Your task to perform on an android device: move an email to a new category in the gmail app Image 0: 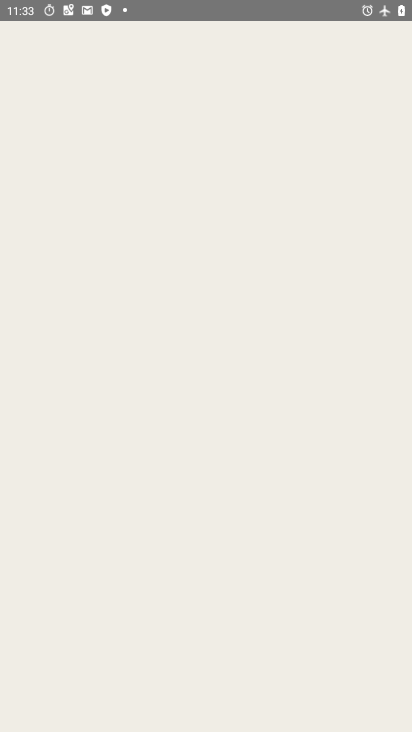
Step 0: press home button
Your task to perform on an android device: move an email to a new category in the gmail app Image 1: 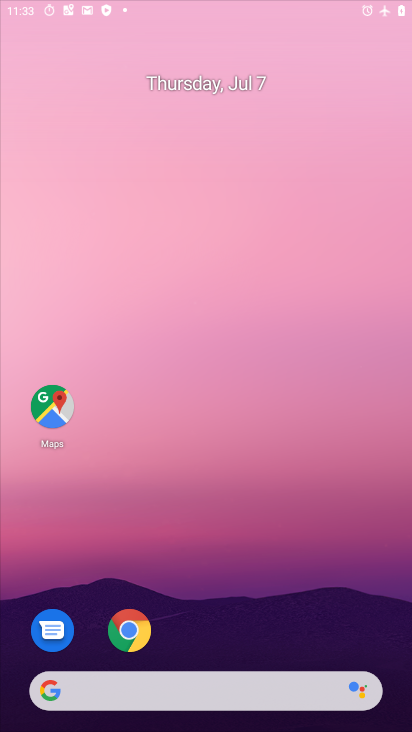
Step 1: press home button
Your task to perform on an android device: move an email to a new category in the gmail app Image 2: 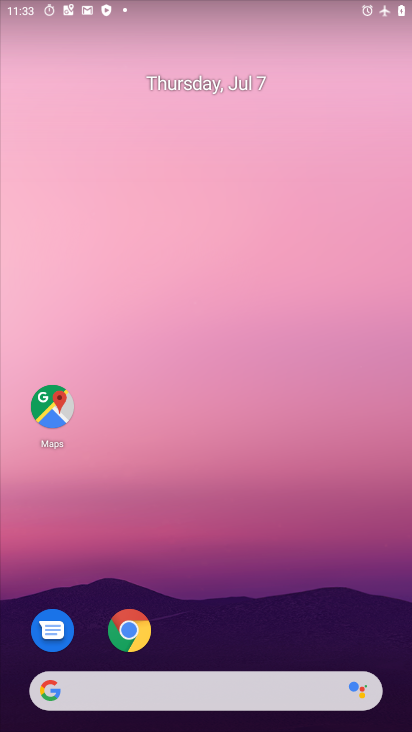
Step 2: drag from (192, 618) to (199, 142)
Your task to perform on an android device: move an email to a new category in the gmail app Image 3: 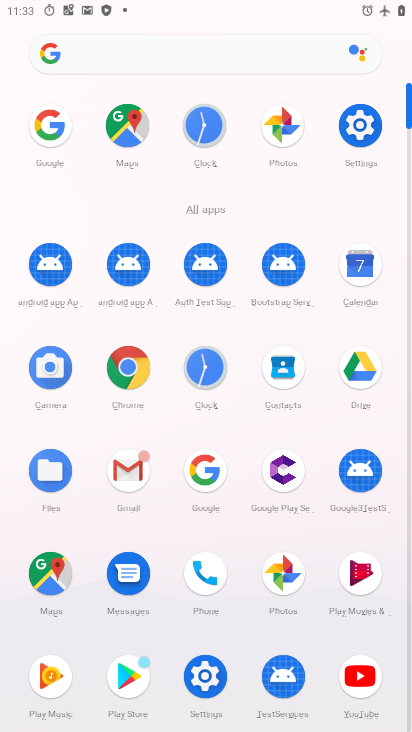
Step 3: click (137, 467)
Your task to perform on an android device: move an email to a new category in the gmail app Image 4: 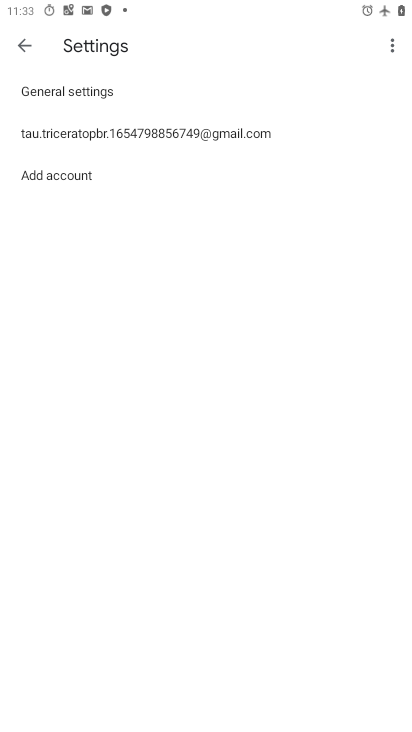
Step 4: click (30, 47)
Your task to perform on an android device: move an email to a new category in the gmail app Image 5: 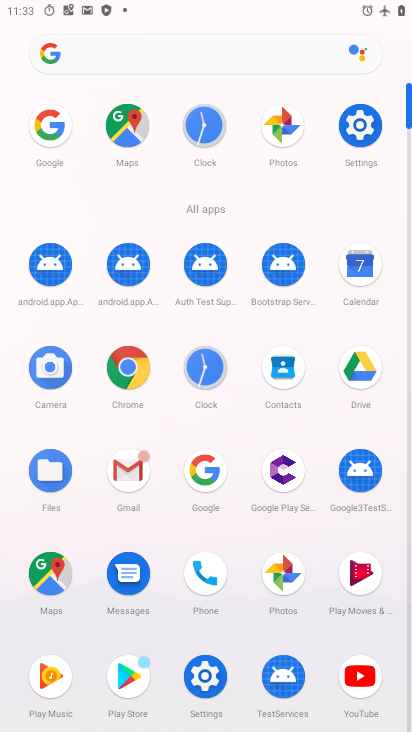
Step 5: click (142, 476)
Your task to perform on an android device: move an email to a new category in the gmail app Image 6: 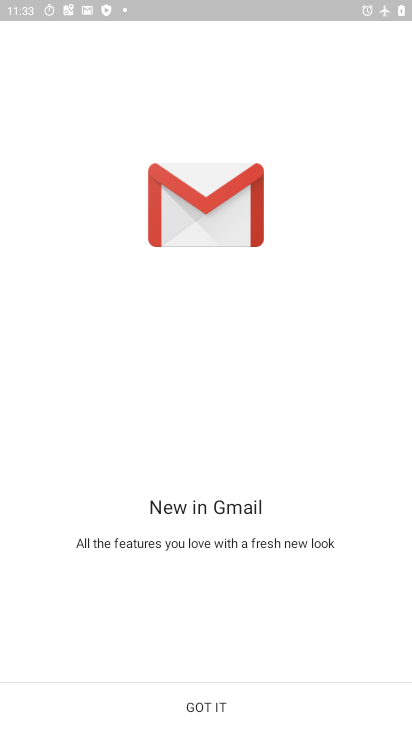
Step 6: click (230, 714)
Your task to perform on an android device: move an email to a new category in the gmail app Image 7: 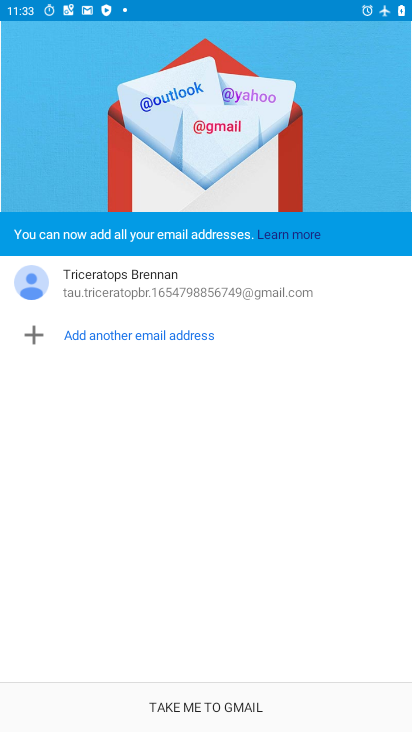
Step 7: click (229, 693)
Your task to perform on an android device: move an email to a new category in the gmail app Image 8: 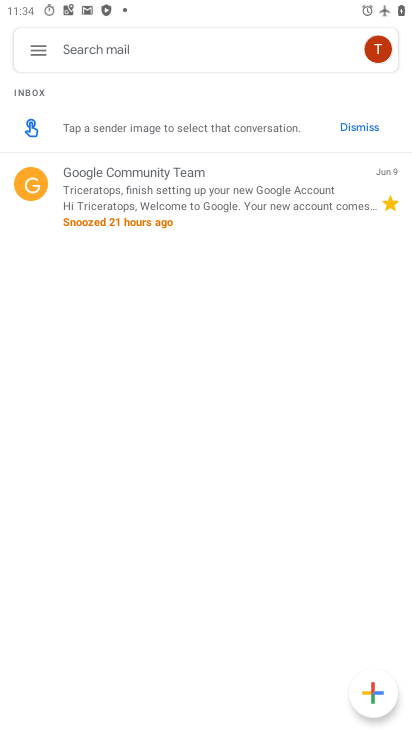
Step 8: click (207, 178)
Your task to perform on an android device: move an email to a new category in the gmail app Image 9: 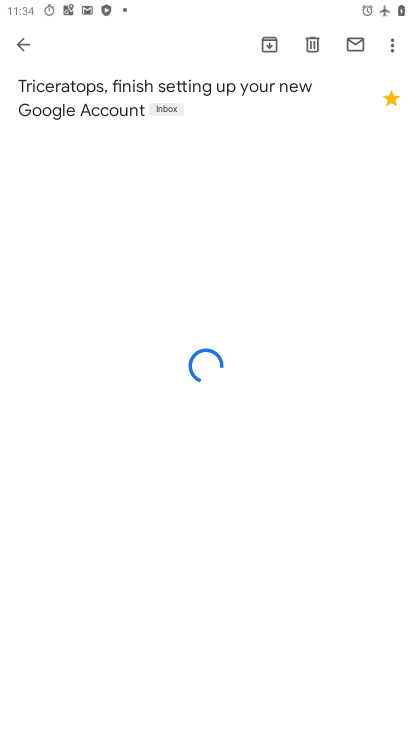
Step 9: click (384, 44)
Your task to perform on an android device: move an email to a new category in the gmail app Image 10: 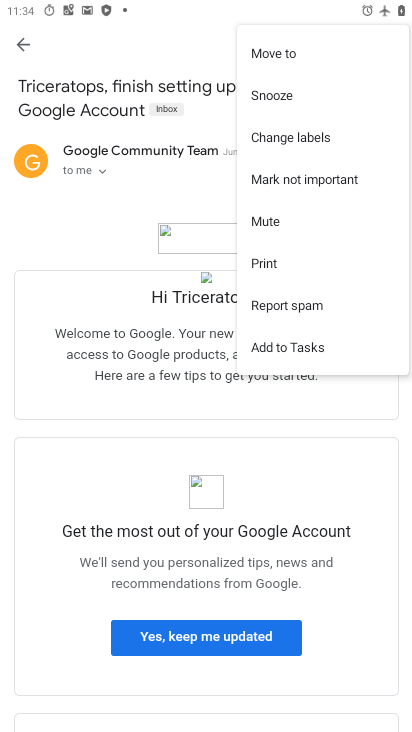
Step 10: click (299, 58)
Your task to perform on an android device: move an email to a new category in the gmail app Image 11: 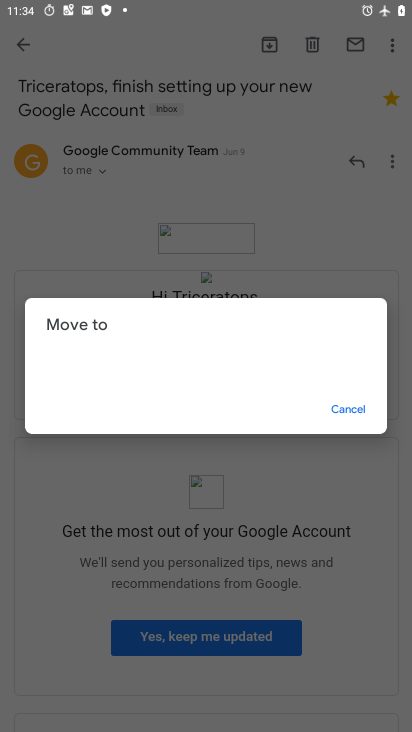
Step 11: click (85, 349)
Your task to perform on an android device: move an email to a new category in the gmail app Image 12: 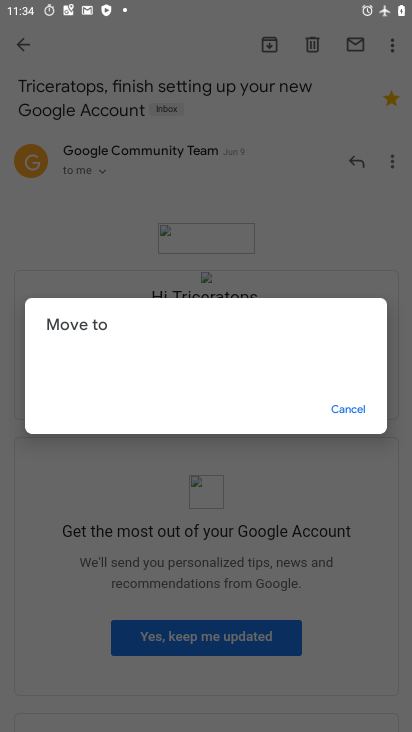
Step 12: click (83, 334)
Your task to perform on an android device: move an email to a new category in the gmail app Image 13: 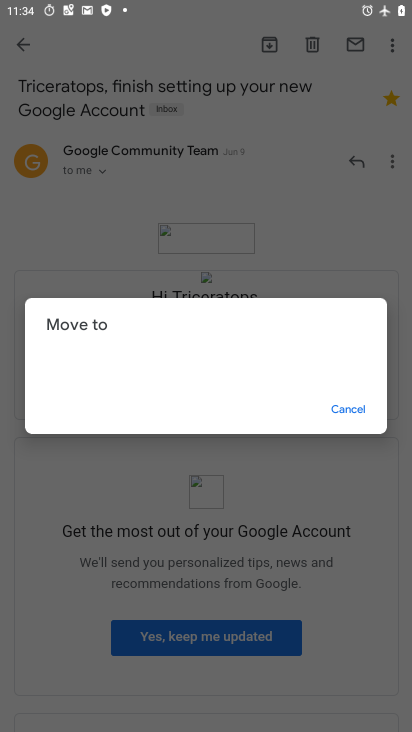
Step 13: click (332, 406)
Your task to perform on an android device: move an email to a new category in the gmail app Image 14: 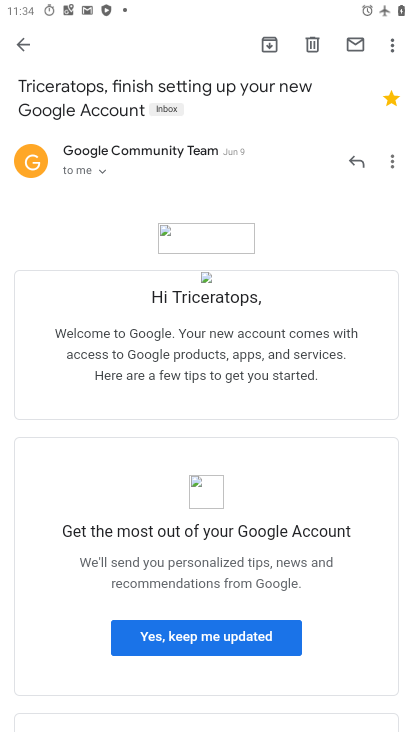
Step 14: task complete